Your task to perform on an android device: check google app version Image 0: 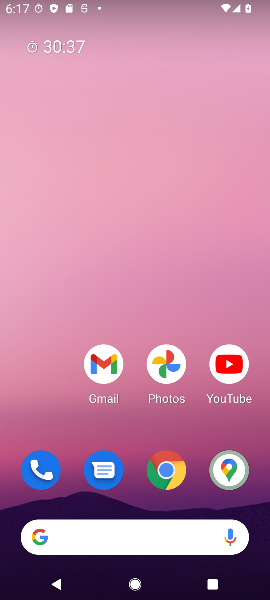
Step 0: drag from (128, 482) to (157, 3)
Your task to perform on an android device: check google app version Image 1: 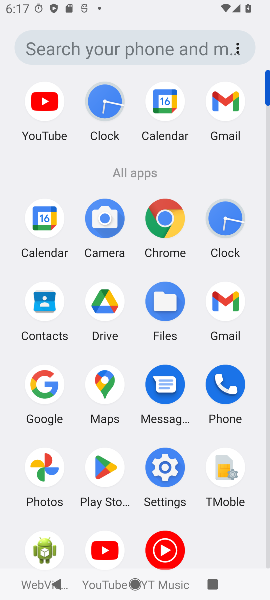
Step 1: click (43, 378)
Your task to perform on an android device: check google app version Image 2: 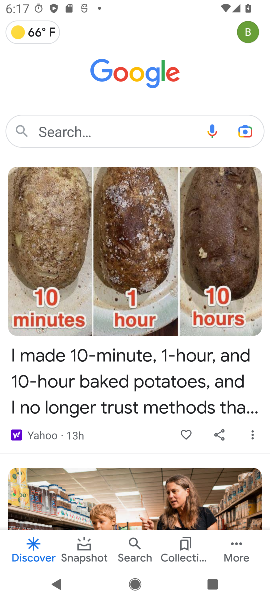
Step 2: press home button
Your task to perform on an android device: check google app version Image 3: 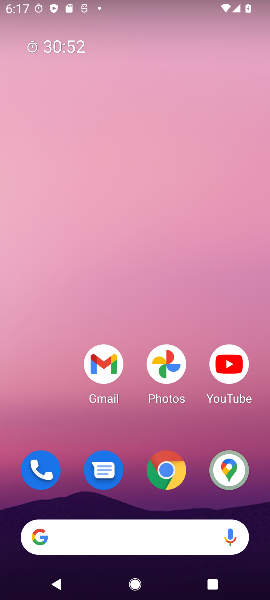
Step 3: drag from (119, 496) to (234, 14)
Your task to perform on an android device: check google app version Image 4: 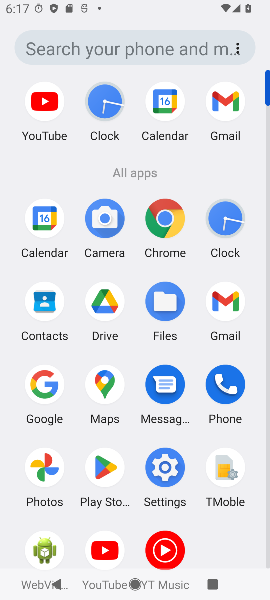
Step 4: click (38, 380)
Your task to perform on an android device: check google app version Image 5: 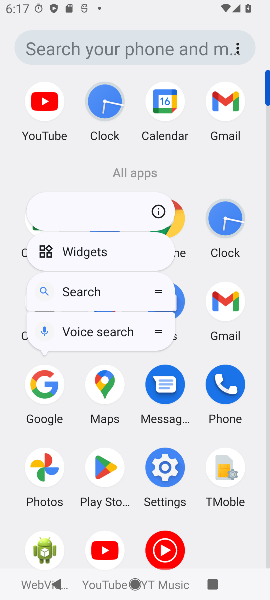
Step 5: click (161, 211)
Your task to perform on an android device: check google app version Image 6: 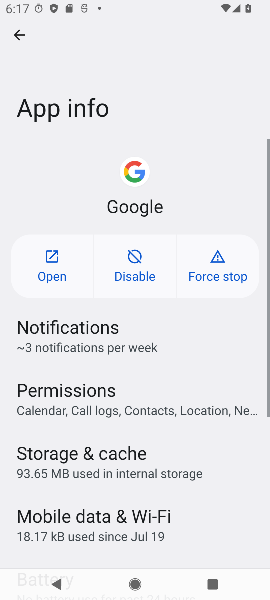
Step 6: task complete